Your task to perform on an android device: manage bookmarks in the chrome app Image 0: 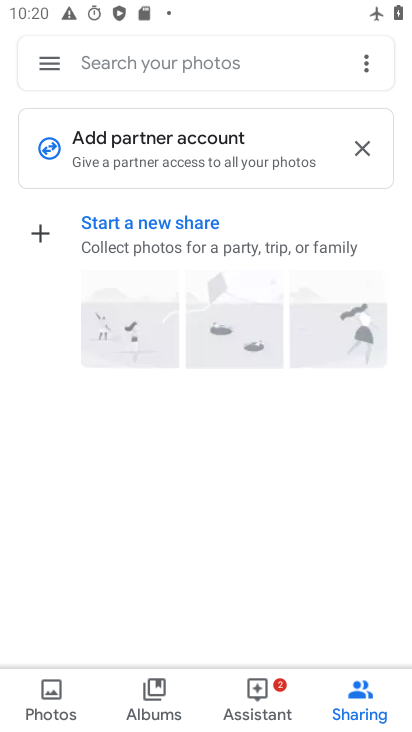
Step 0: click (50, 59)
Your task to perform on an android device: manage bookmarks in the chrome app Image 1: 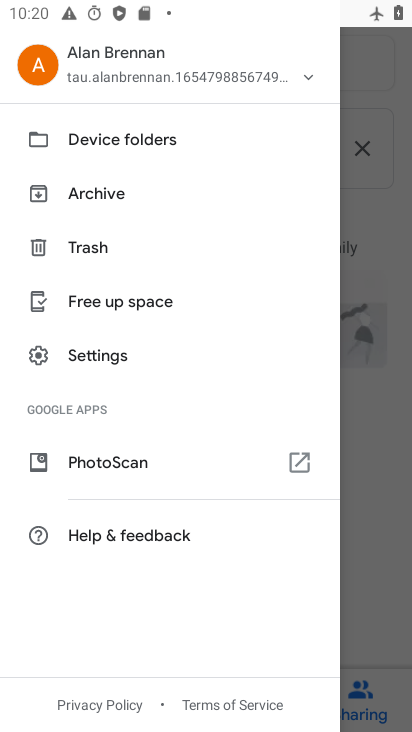
Step 1: press home button
Your task to perform on an android device: manage bookmarks in the chrome app Image 2: 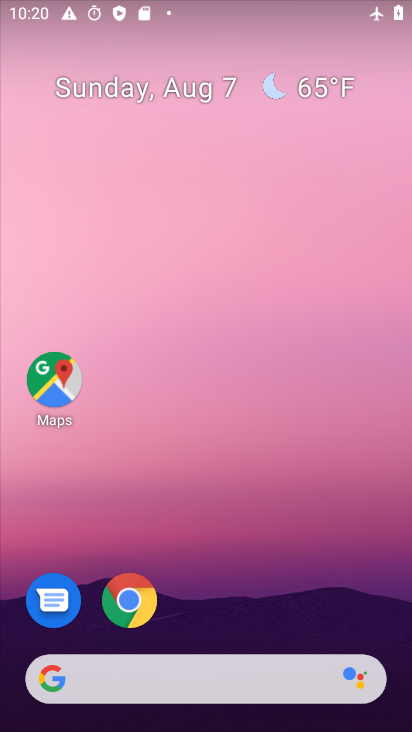
Step 2: click (138, 612)
Your task to perform on an android device: manage bookmarks in the chrome app Image 3: 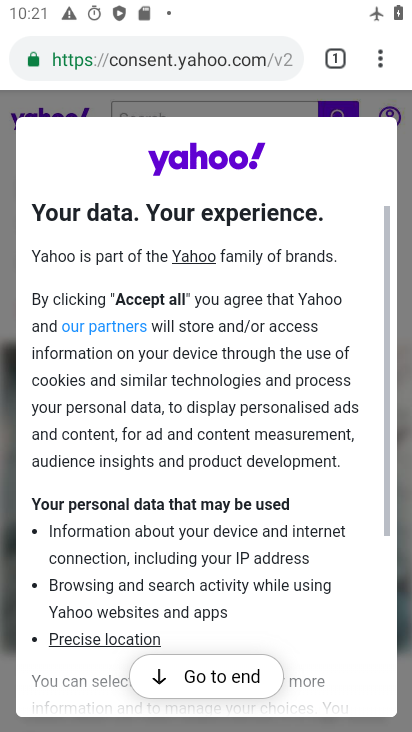
Step 3: click (391, 63)
Your task to perform on an android device: manage bookmarks in the chrome app Image 4: 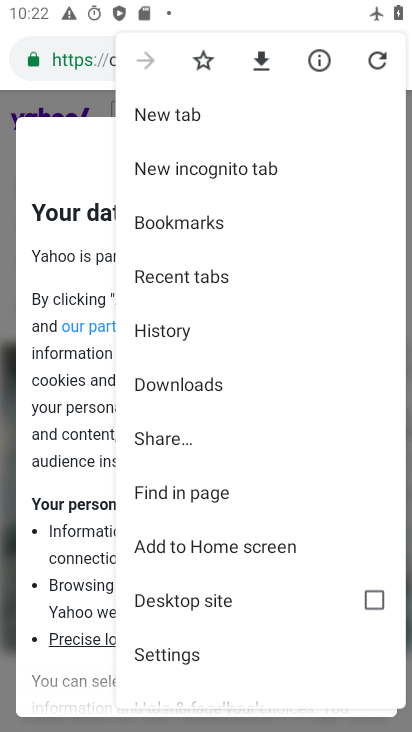
Step 4: click (157, 227)
Your task to perform on an android device: manage bookmarks in the chrome app Image 5: 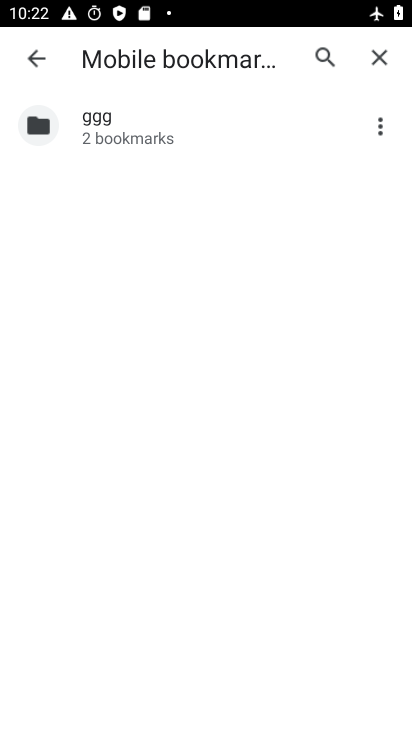
Step 5: task complete